Your task to perform on an android device: allow notifications from all sites in the chrome app Image 0: 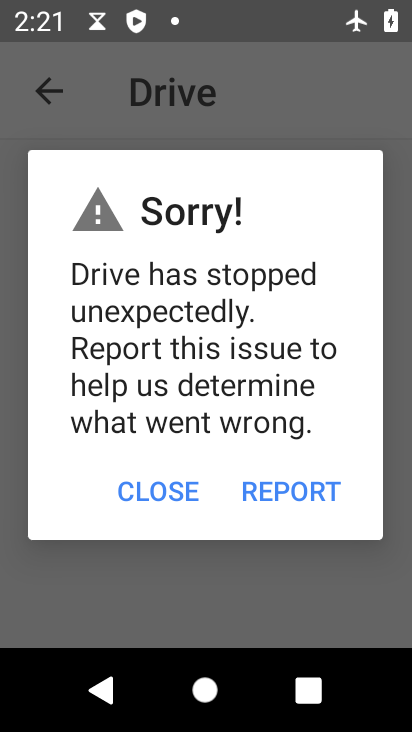
Step 0: click (191, 485)
Your task to perform on an android device: allow notifications from all sites in the chrome app Image 1: 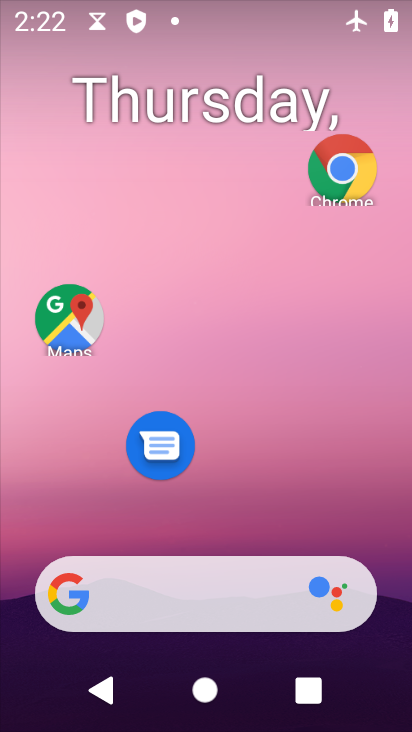
Step 1: click (260, 31)
Your task to perform on an android device: allow notifications from all sites in the chrome app Image 2: 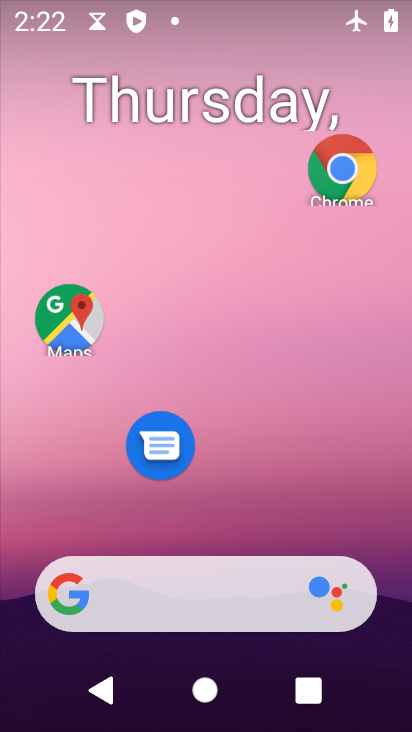
Step 2: drag from (178, 526) to (201, 137)
Your task to perform on an android device: allow notifications from all sites in the chrome app Image 3: 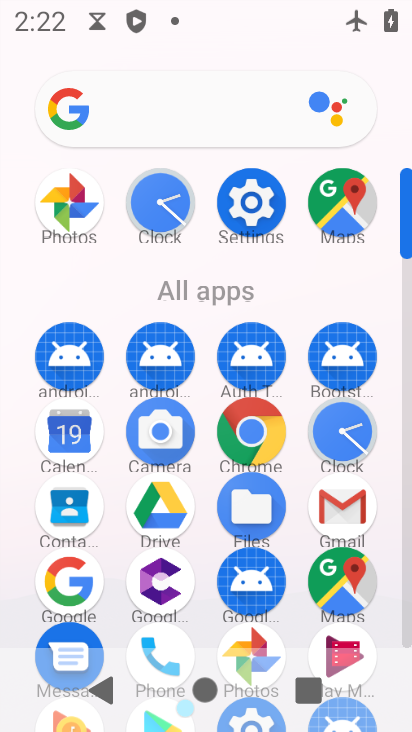
Step 3: click (258, 433)
Your task to perform on an android device: allow notifications from all sites in the chrome app Image 4: 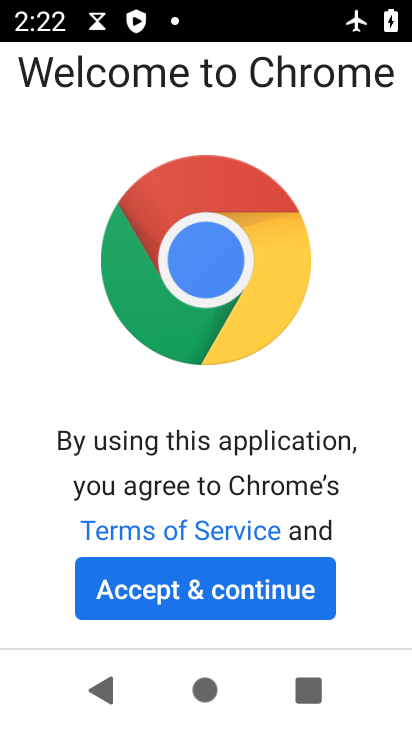
Step 4: click (182, 584)
Your task to perform on an android device: allow notifications from all sites in the chrome app Image 5: 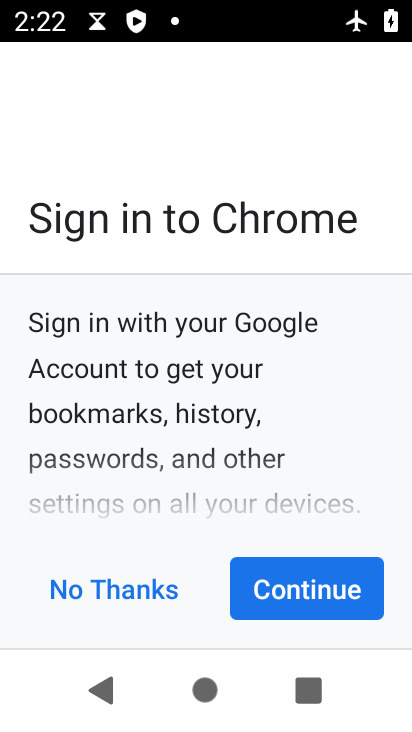
Step 5: click (285, 595)
Your task to perform on an android device: allow notifications from all sites in the chrome app Image 6: 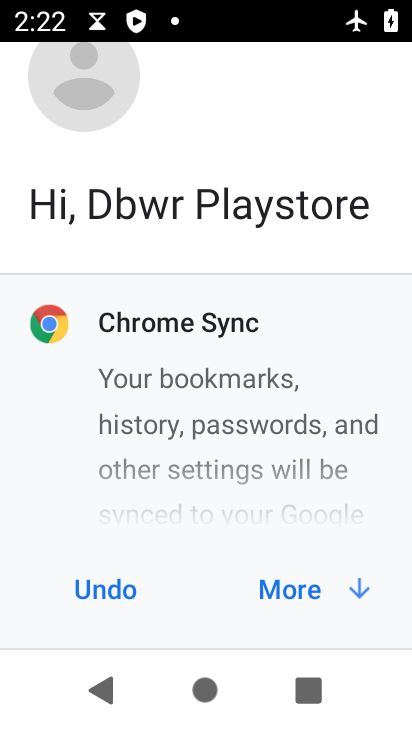
Step 6: click (301, 591)
Your task to perform on an android device: allow notifications from all sites in the chrome app Image 7: 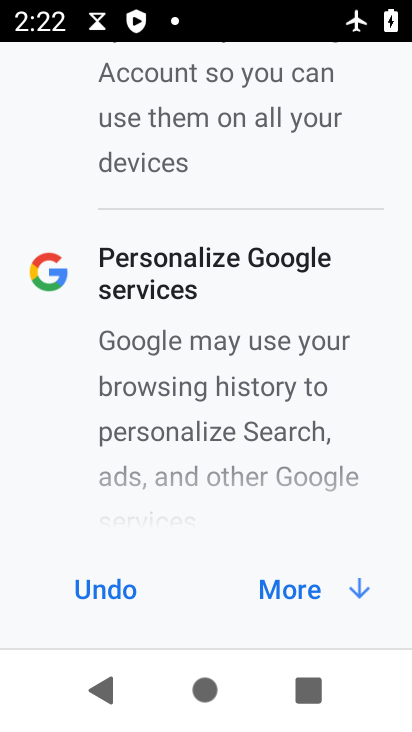
Step 7: click (279, 593)
Your task to perform on an android device: allow notifications from all sites in the chrome app Image 8: 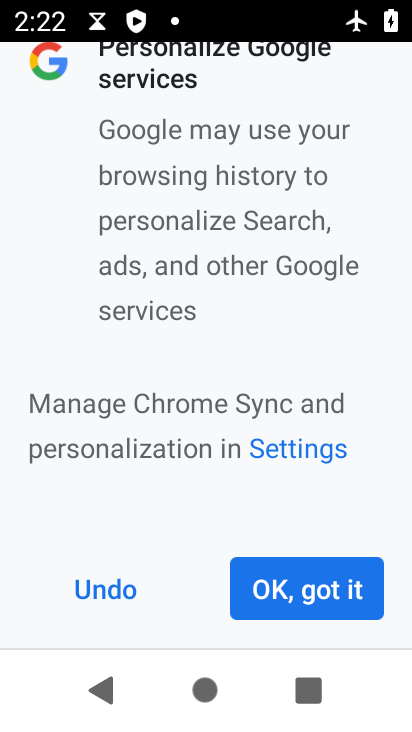
Step 8: click (299, 598)
Your task to perform on an android device: allow notifications from all sites in the chrome app Image 9: 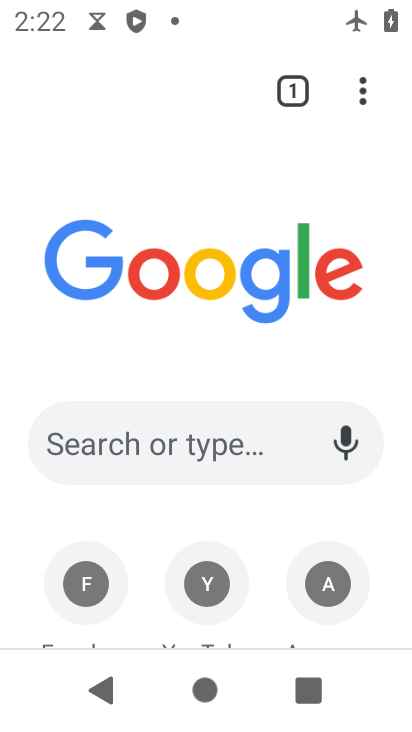
Step 9: click (361, 91)
Your task to perform on an android device: allow notifications from all sites in the chrome app Image 10: 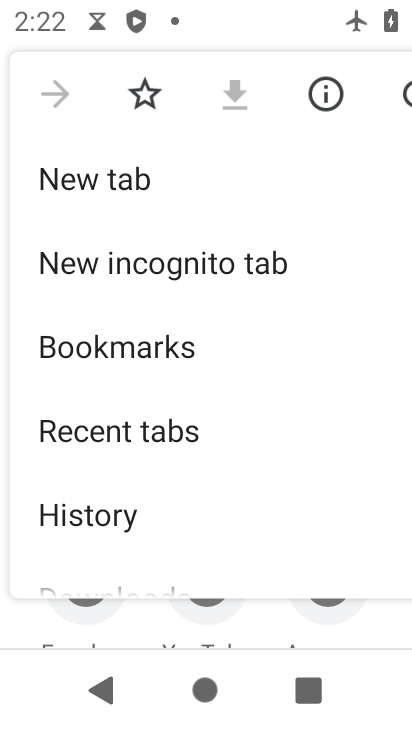
Step 10: drag from (205, 442) to (173, 137)
Your task to perform on an android device: allow notifications from all sites in the chrome app Image 11: 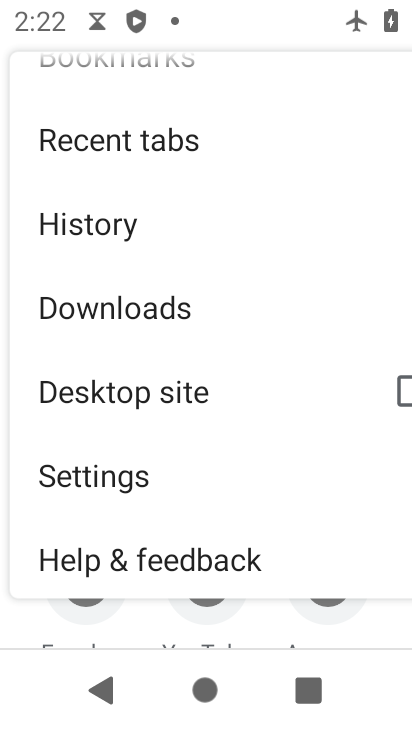
Step 11: click (121, 478)
Your task to perform on an android device: allow notifications from all sites in the chrome app Image 12: 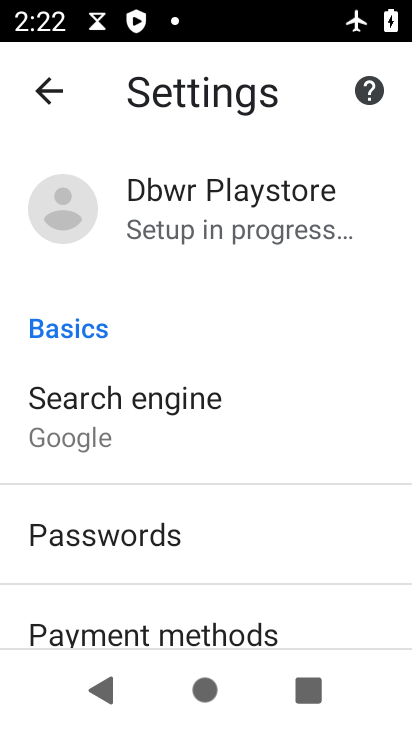
Step 12: drag from (115, 263) to (123, 132)
Your task to perform on an android device: allow notifications from all sites in the chrome app Image 13: 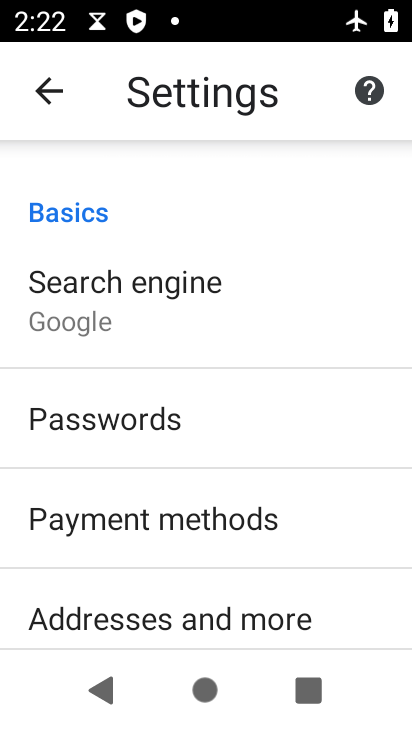
Step 13: drag from (150, 528) to (141, 117)
Your task to perform on an android device: allow notifications from all sites in the chrome app Image 14: 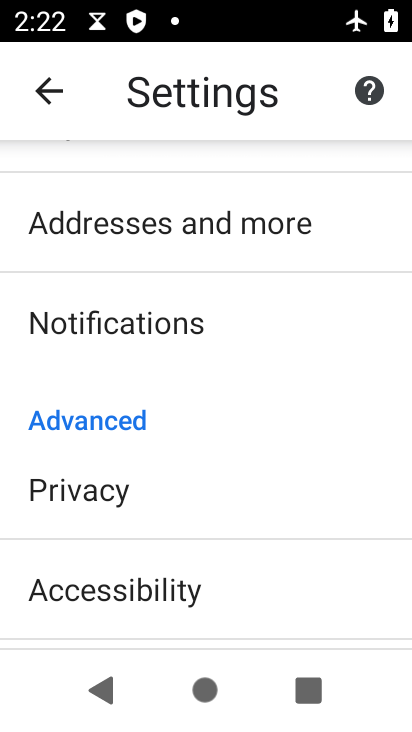
Step 14: click (148, 331)
Your task to perform on an android device: allow notifications from all sites in the chrome app Image 15: 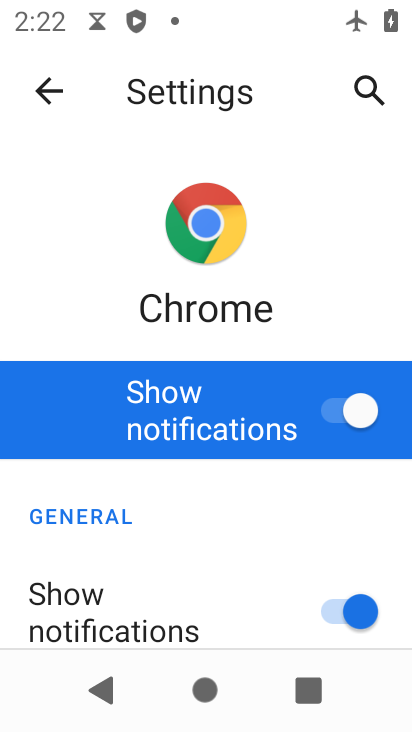
Step 15: click (47, 88)
Your task to perform on an android device: allow notifications from all sites in the chrome app Image 16: 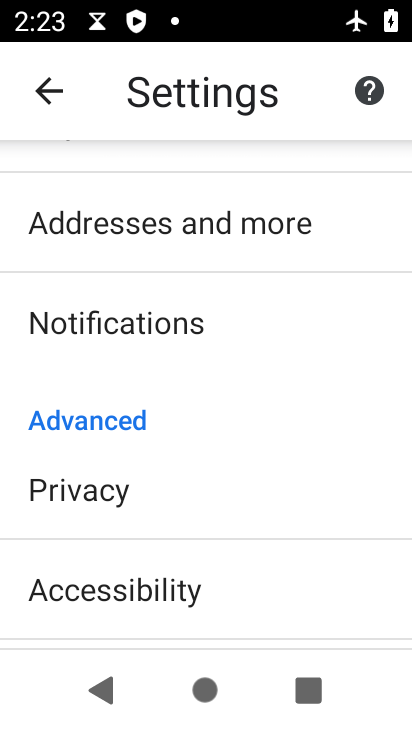
Step 16: drag from (115, 274) to (165, 562)
Your task to perform on an android device: allow notifications from all sites in the chrome app Image 17: 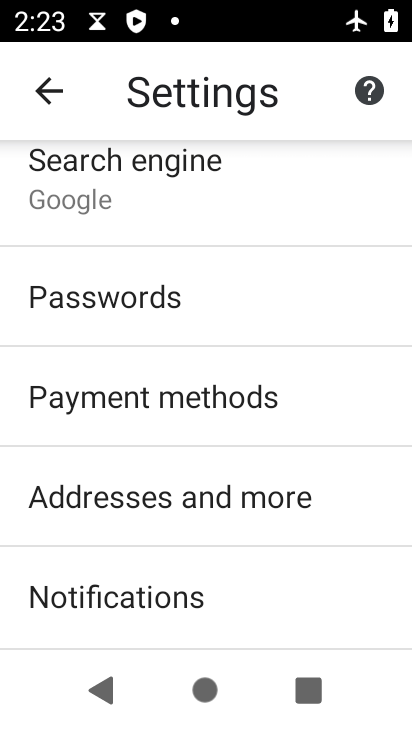
Step 17: drag from (157, 527) to (138, 254)
Your task to perform on an android device: allow notifications from all sites in the chrome app Image 18: 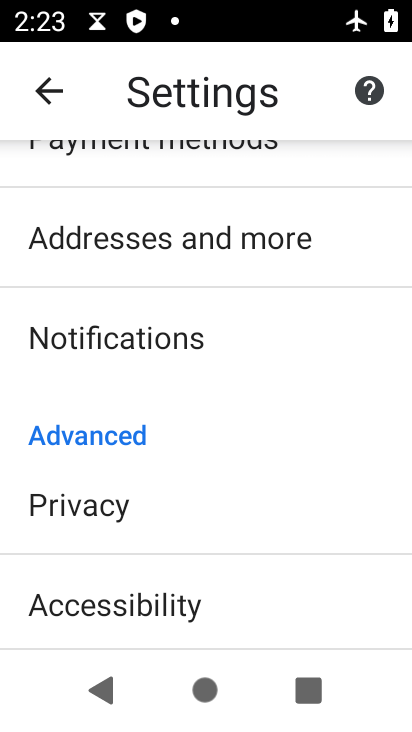
Step 18: drag from (175, 365) to (157, 268)
Your task to perform on an android device: allow notifications from all sites in the chrome app Image 19: 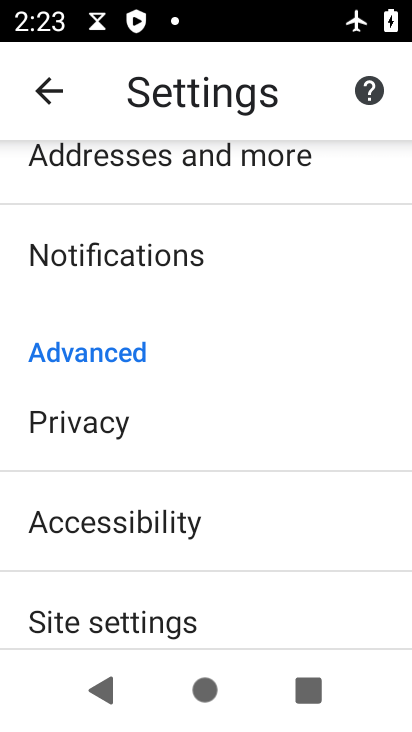
Step 19: click (153, 610)
Your task to perform on an android device: allow notifications from all sites in the chrome app Image 20: 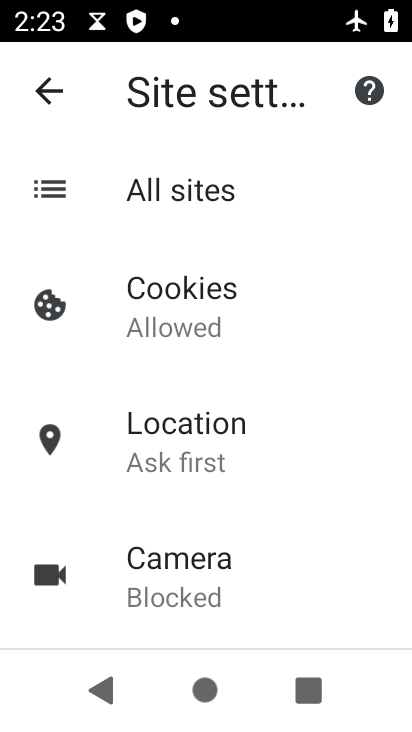
Step 20: click (182, 194)
Your task to perform on an android device: allow notifications from all sites in the chrome app Image 21: 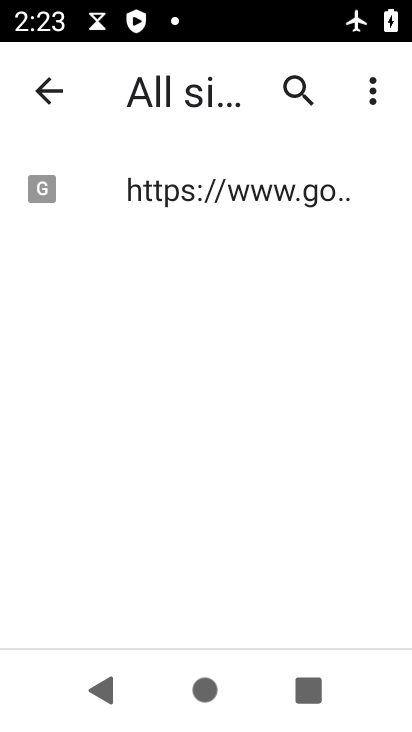
Step 21: click (182, 194)
Your task to perform on an android device: allow notifications from all sites in the chrome app Image 22: 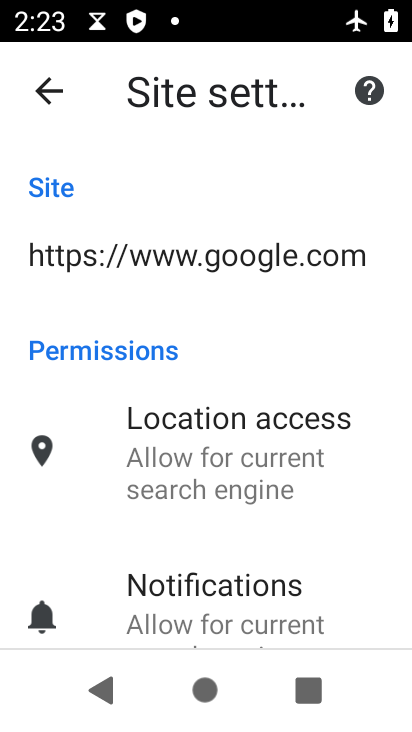
Step 22: click (248, 601)
Your task to perform on an android device: allow notifications from all sites in the chrome app Image 23: 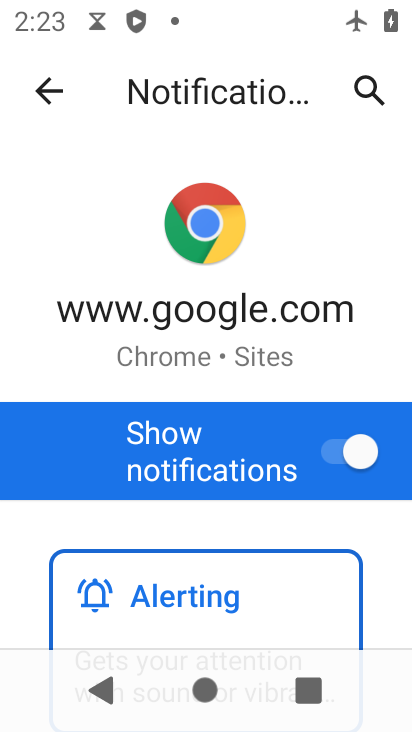
Step 23: task complete